Your task to perform on an android device: snooze an email in the gmail app Image 0: 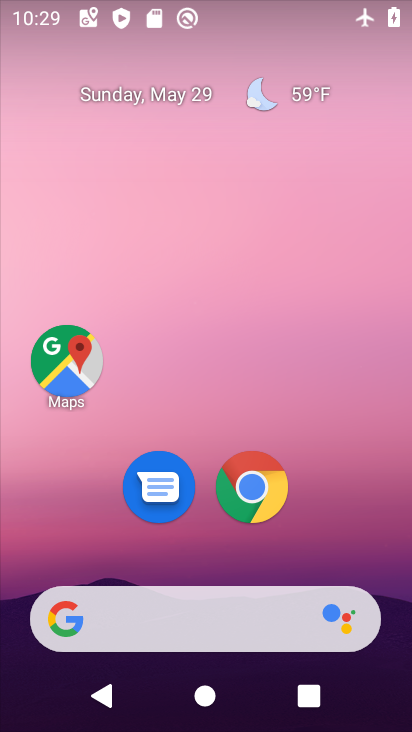
Step 0: drag from (404, 677) to (378, 101)
Your task to perform on an android device: snooze an email in the gmail app Image 1: 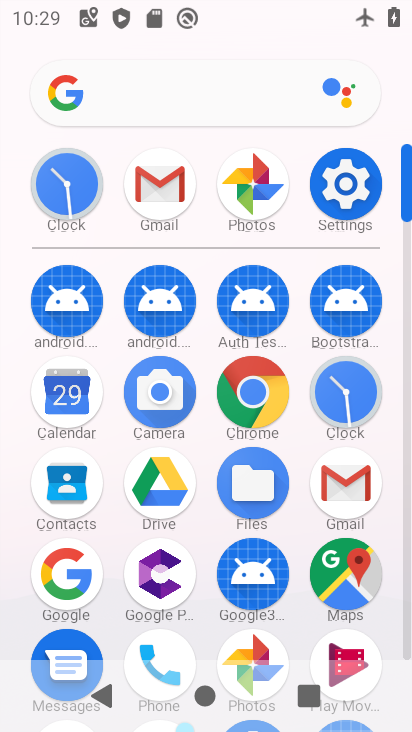
Step 1: click (343, 487)
Your task to perform on an android device: snooze an email in the gmail app Image 2: 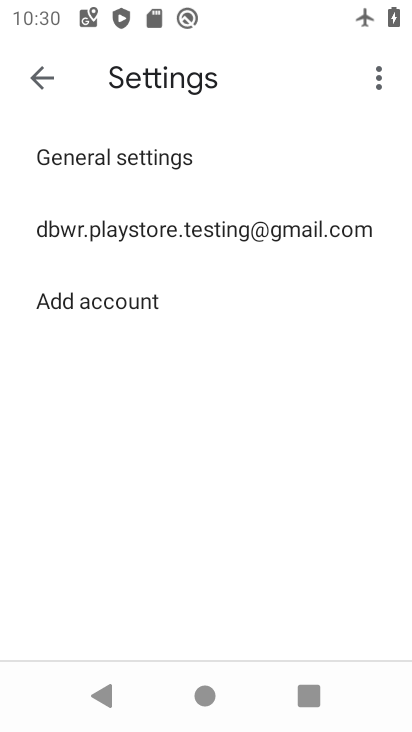
Step 2: click (39, 84)
Your task to perform on an android device: snooze an email in the gmail app Image 3: 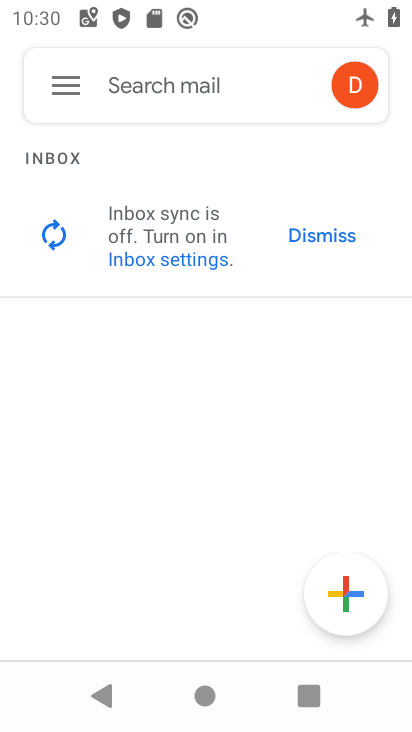
Step 3: click (67, 87)
Your task to perform on an android device: snooze an email in the gmail app Image 4: 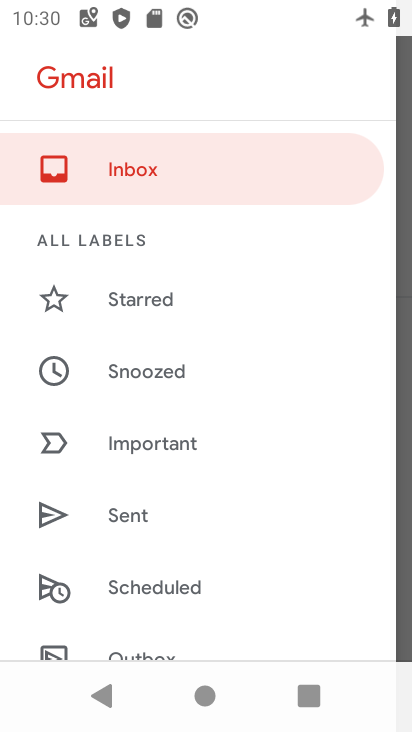
Step 4: click (147, 368)
Your task to perform on an android device: snooze an email in the gmail app Image 5: 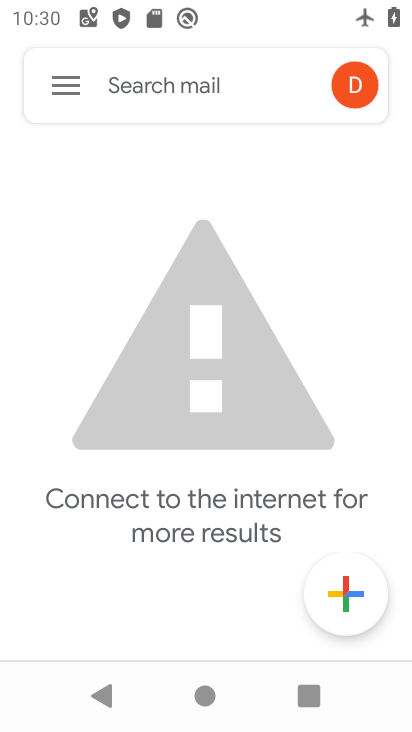
Step 5: task complete